Your task to perform on an android device: change the clock display to show seconds Image 0: 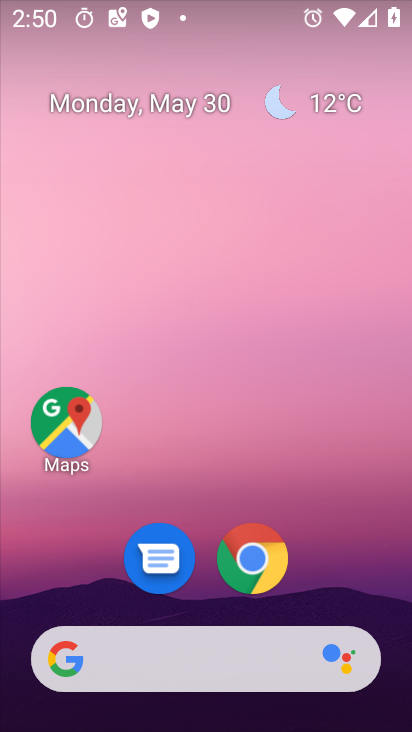
Step 0: drag from (246, 465) to (238, 42)
Your task to perform on an android device: change the clock display to show seconds Image 1: 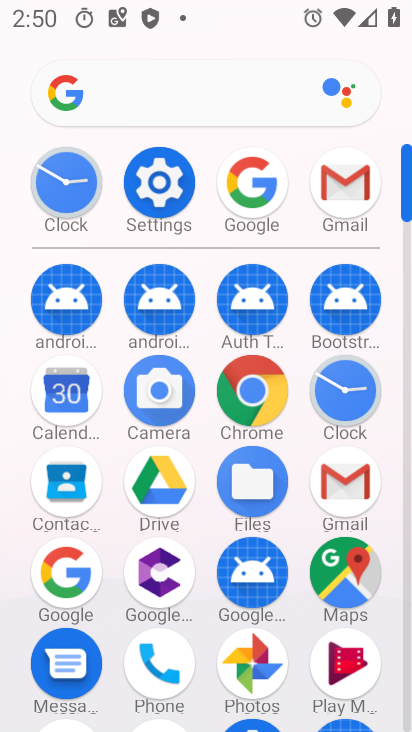
Step 1: click (337, 400)
Your task to perform on an android device: change the clock display to show seconds Image 2: 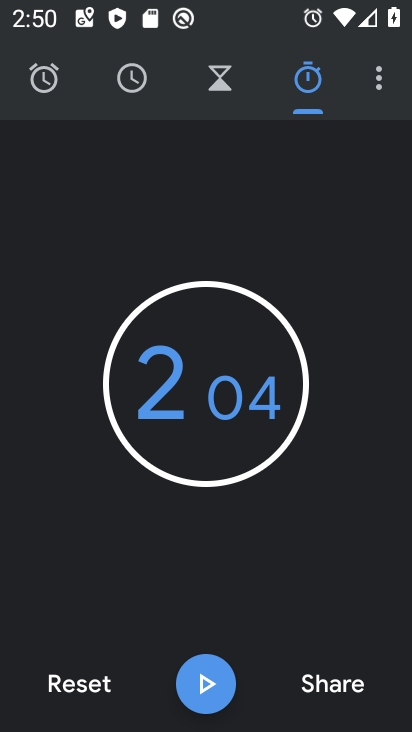
Step 2: click (373, 75)
Your task to perform on an android device: change the clock display to show seconds Image 3: 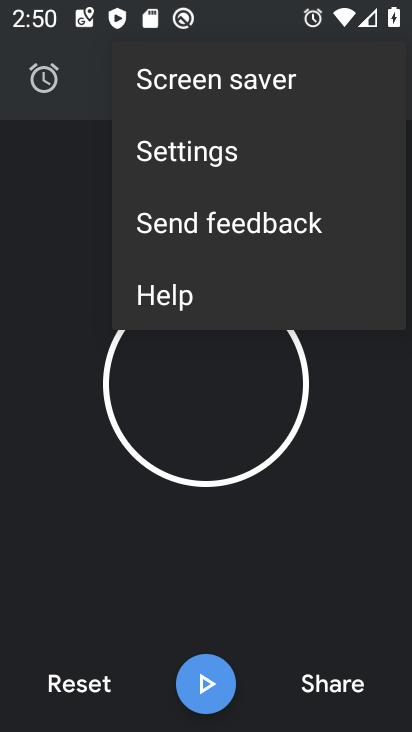
Step 3: click (195, 171)
Your task to perform on an android device: change the clock display to show seconds Image 4: 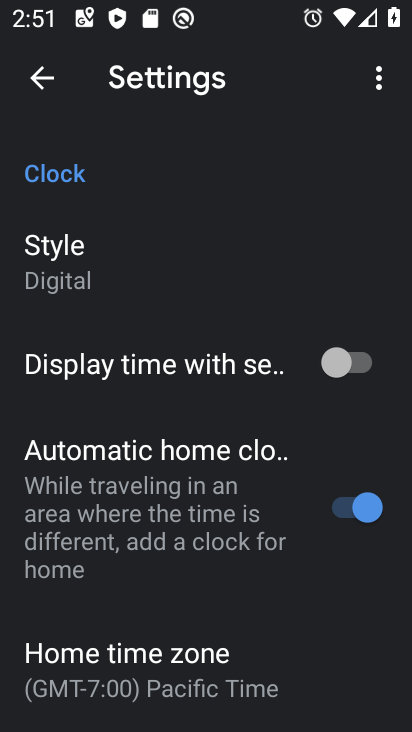
Step 4: click (344, 373)
Your task to perform on an android device: change the clock display to show seconds Image 5: 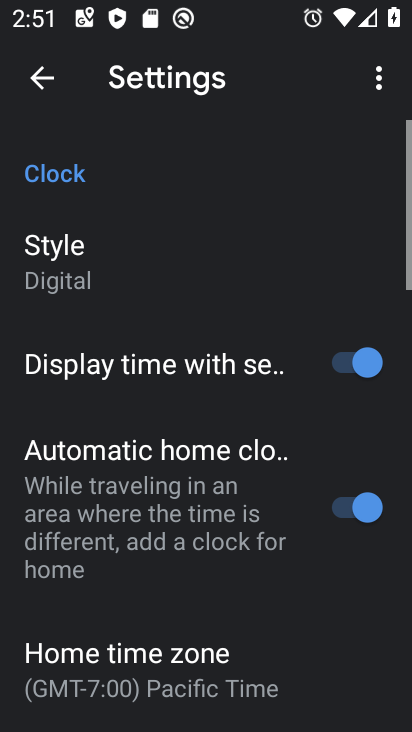
Step 5: task complete